Your task to perform on an android device: Is it going to rain this weekend? Image 0: 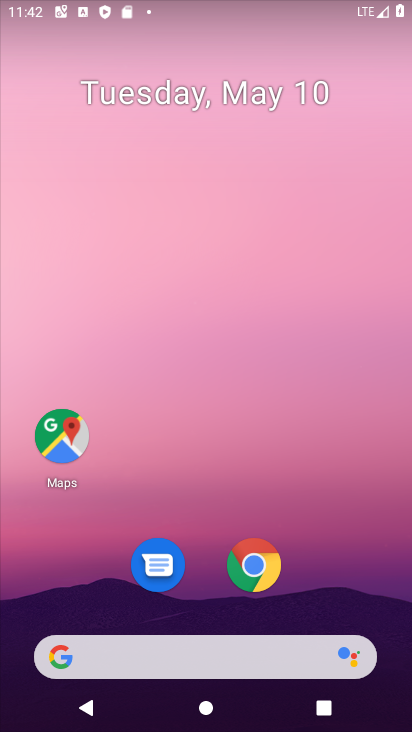
Step 0: click (162, 666)
Your task to perform on an android device: Is it going to rain this weekend? Image 1: 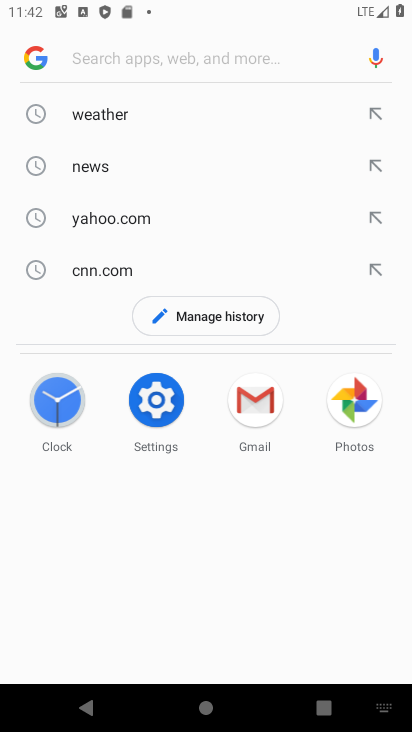
Step 1: click (113, 122)
Your task to perform on an android device: Is it going to rain this weekend? Image 2: 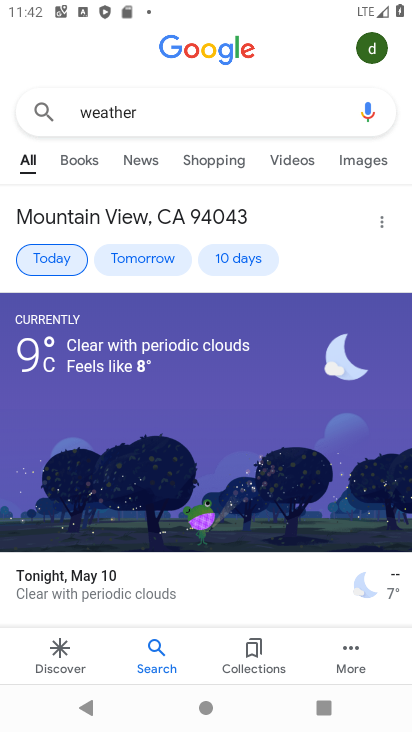
Step 2: click (246, 256)
Your task to perform on an android device: Is it going to rain this weekend? Image 3: 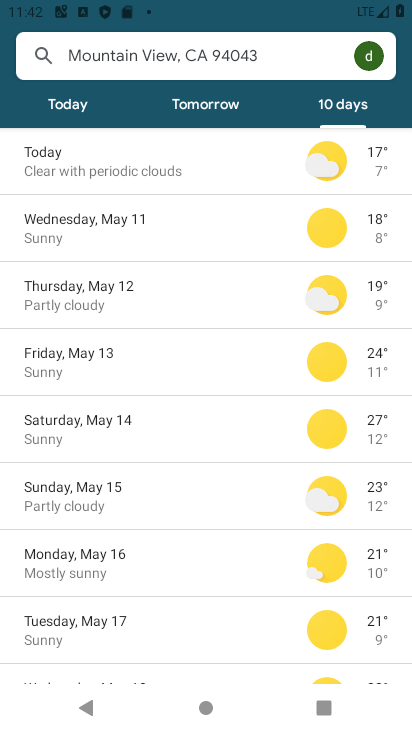
Step 3: task complete